Your task to perform on an android device: turn off location Image 0: 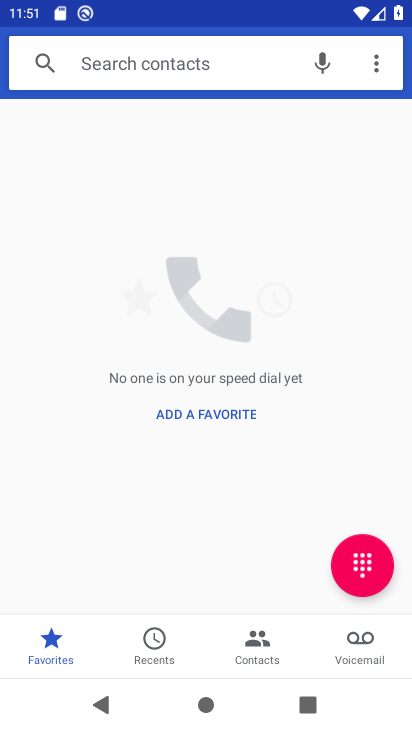
Step 0: press home button
Your task to perform on an android device: turn off location Image 1: 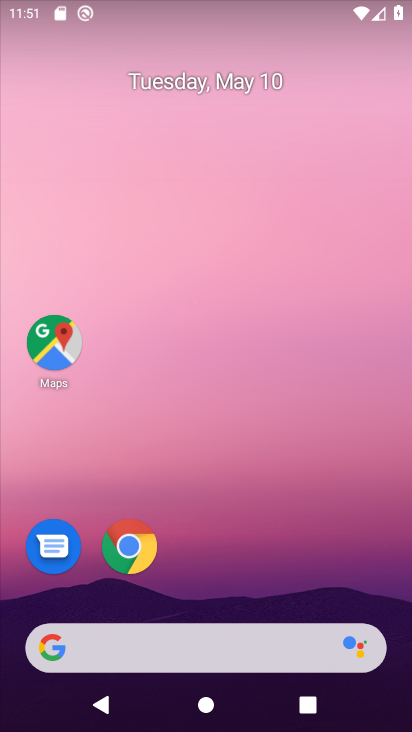
Step 1: drag from (225, 557) to (260, 189)
Your task to perform on an android device: turn off location Image 2: 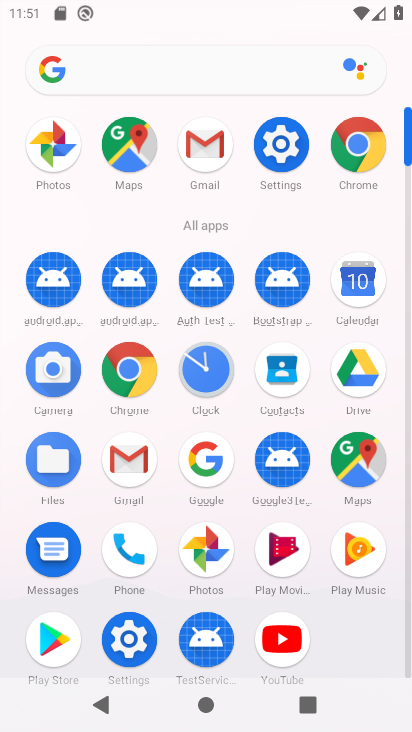
Step 2: click (270, 142)
Your task to perform on an android device: turn off location Image 3: 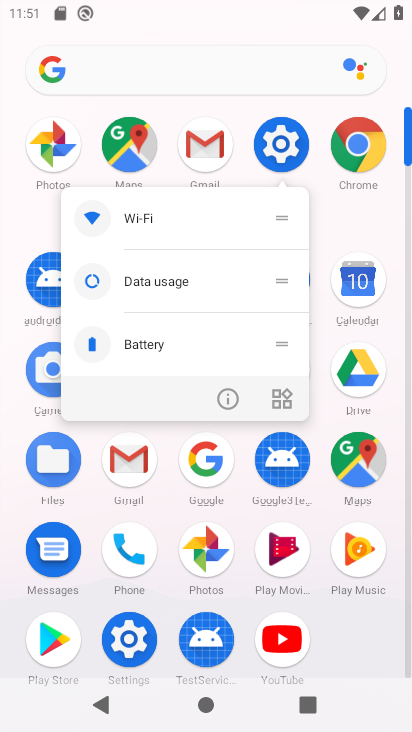
Step 3: click (273, 143)
Your task to perform on an android device: turn off location Image 4: 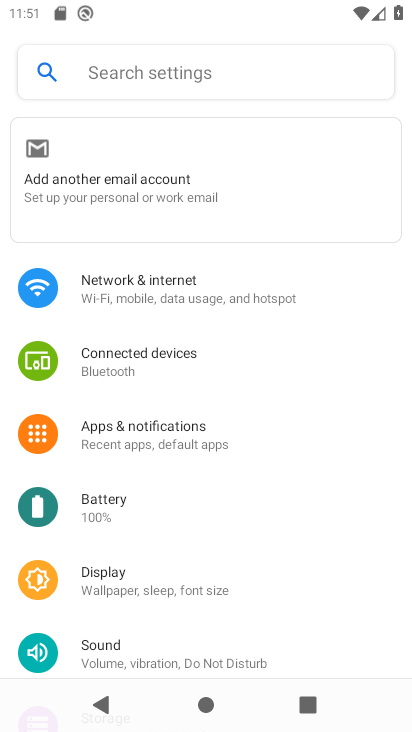
Step 4: drag from (165, 618) to (247, 253)
Your task to perform on an android device: turn off location Image 5: 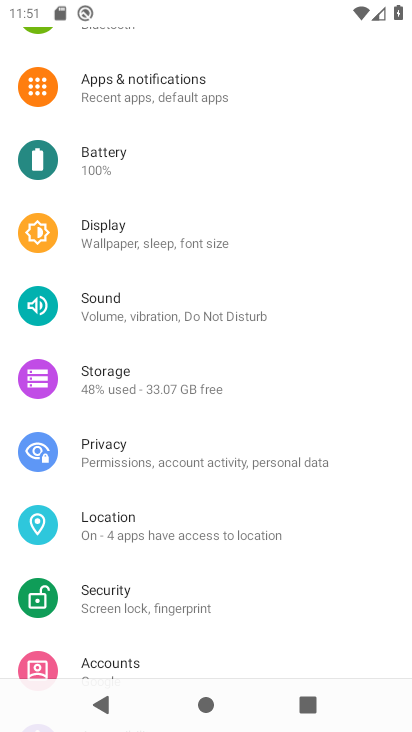
Step 5: drag from (146, 588) to (158, 518)
Your task to perform on an android device: turn off location Image 6: 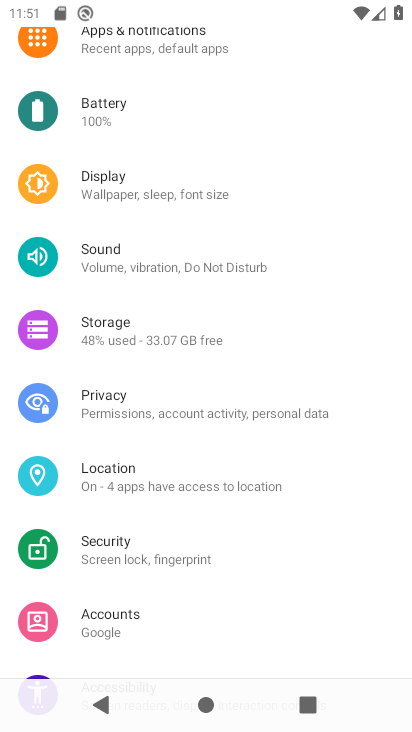
Step 6: click (148, 475)
Your task to perform on an android device: turn off location Image 7: 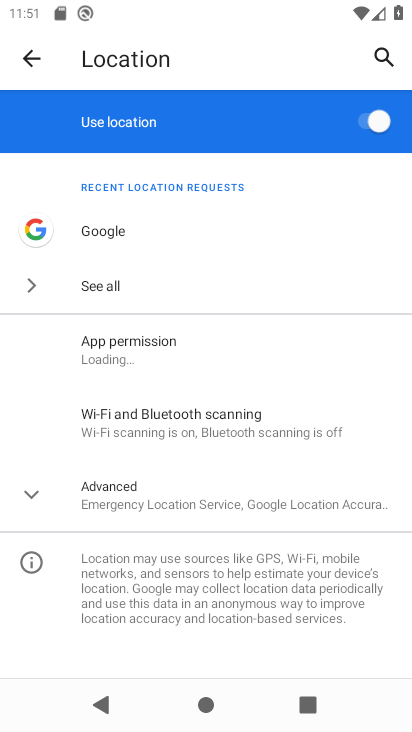
Step 7: click (364, 110)
Your task to perform on an android device: turn off location Image 8: 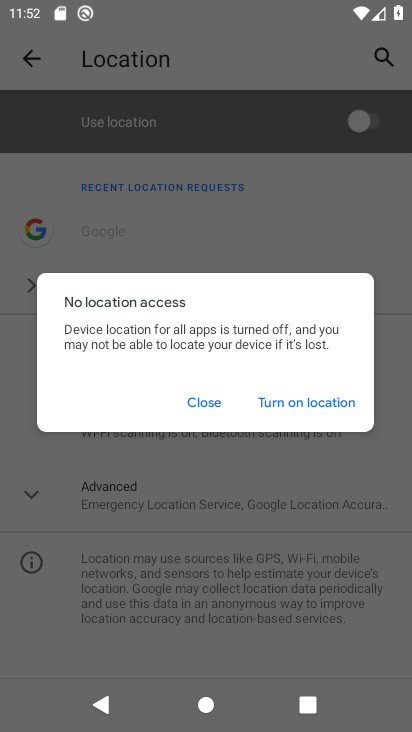
Step 8: click (199, 408)
Your task to perform on an android device: turn off location Image 9: 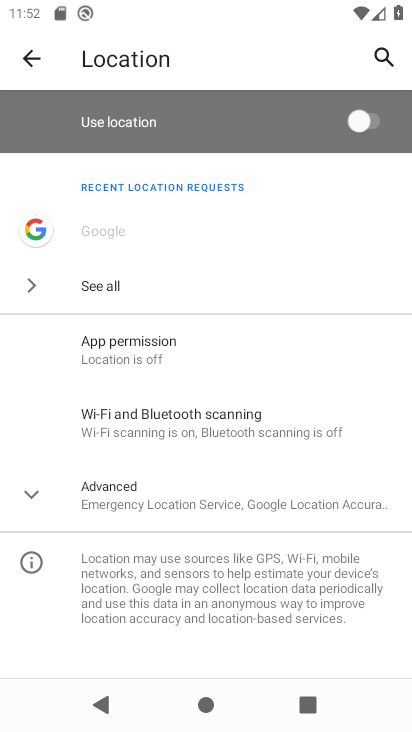
Step 9: task complete